Your task to perform on an android device: Open CNN.com Image 0: 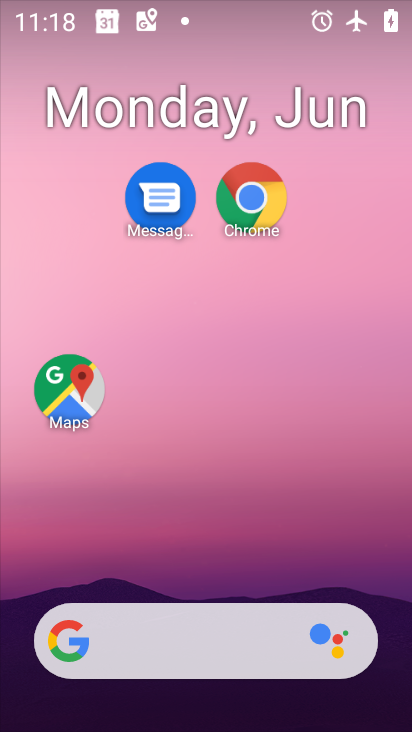
Step 0: click (265, 225)
Your task to perform on an android device: Open CNN.com Image 1: 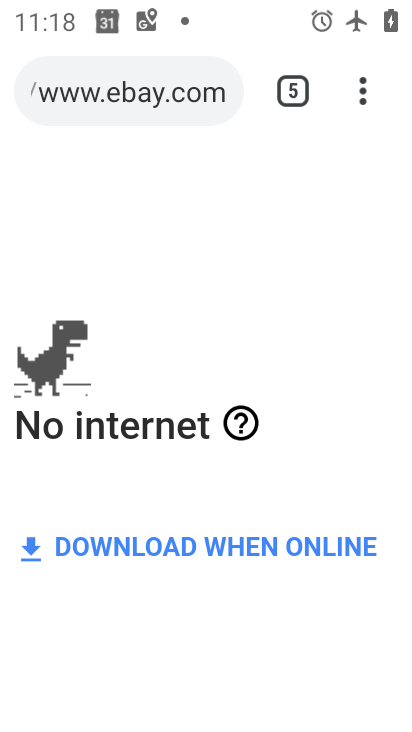
Step 1: click (298, 102)
Your task to perform on an android device: Open CNN.com Image 2: 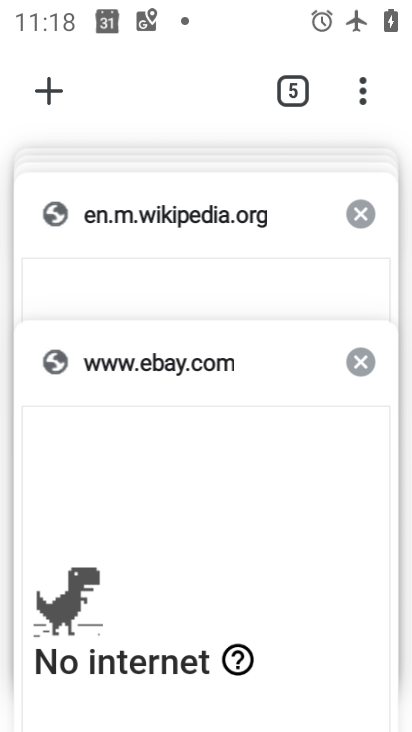
Step 2: click (356, 216)
Your task to perform on an android device: Open CNN.com Image 3: 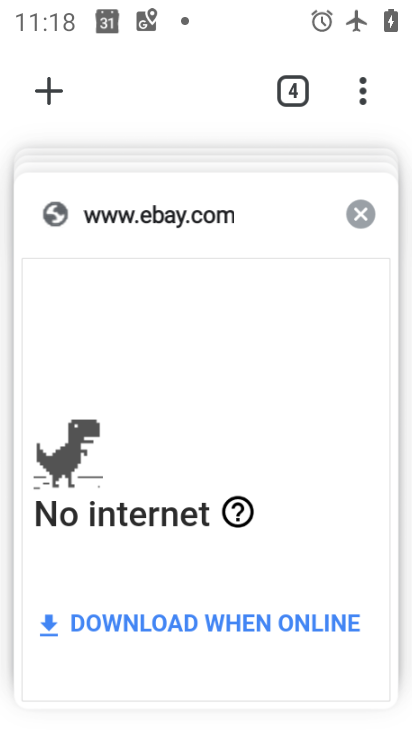
Step 3: click (356, 216)
Your task to perform on an android device: Open CNN.com Image 4: 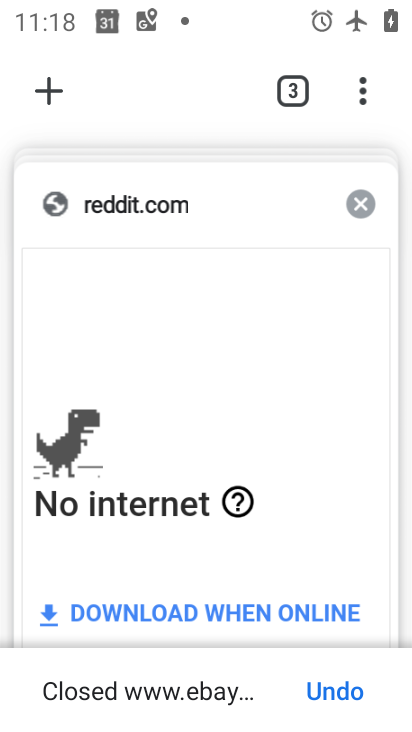
Step 4: click (356, 205)
Your task to perform on an android device: Open CNN.com Image 5: 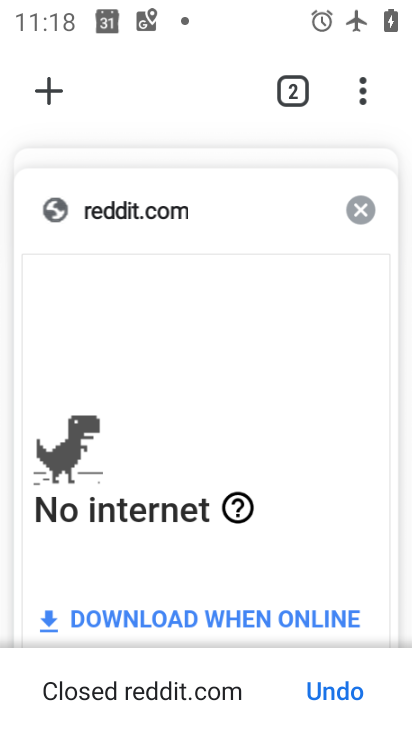
Step 5: click (356, 205)
Your task to perform on an android device: Open CNN.com Image 6: 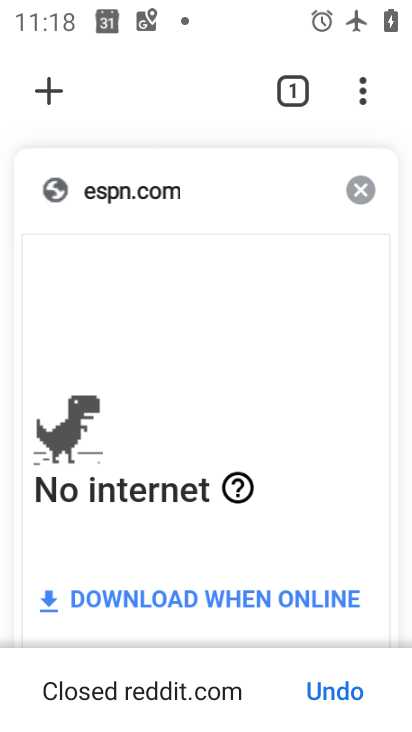
Step 6: click (54, 81)
Your task to perform on an android device: Open CNN.com Image 7: 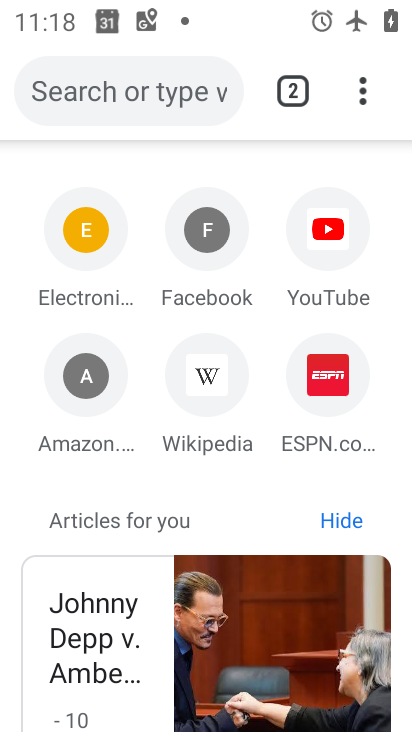
Step 7: type "CNN.com"
Your task to perform on an android device: Open CNN.com Image 8: 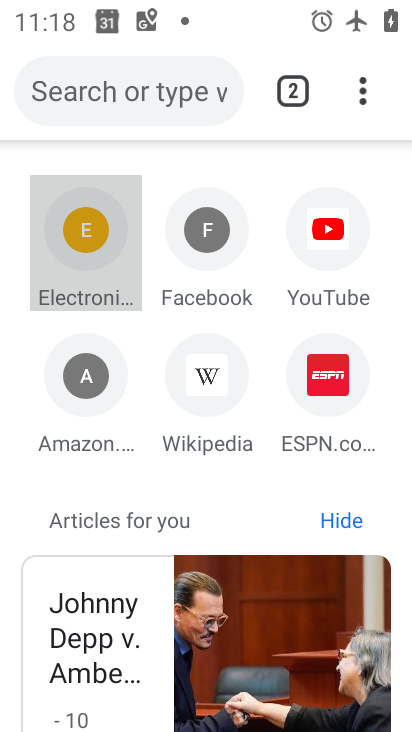
Step 8: click (107, 82)
Your task to perform on an android device: Open CNN.com Image 9: 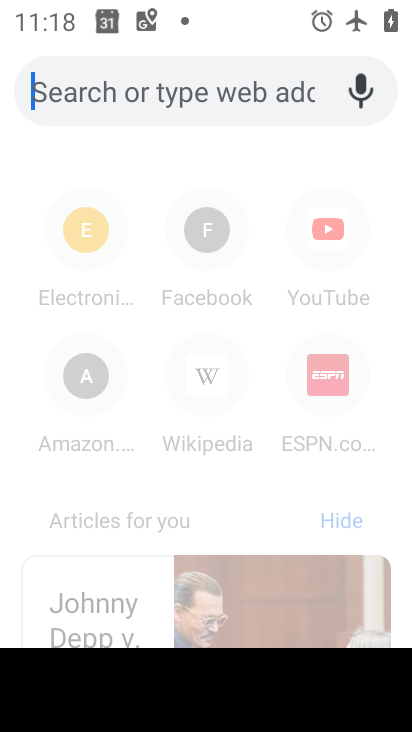
Step 9: type "CNN.com"
Your task to perform on an android device: Open CNN.com Image 10: 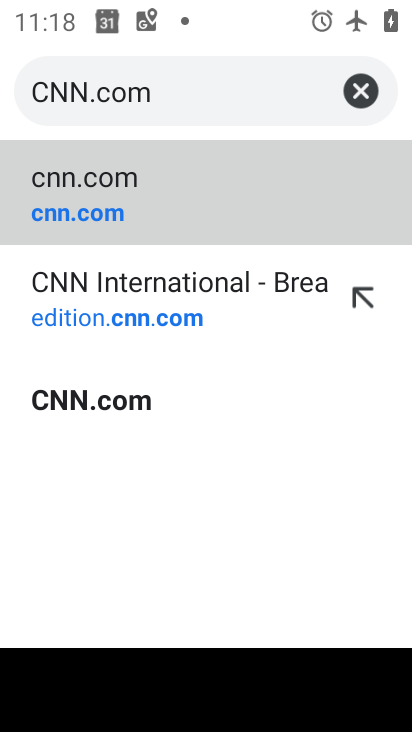
Step 10: click (241, 208)
Your task to perform on an android device: Open CNN.com Image 11: 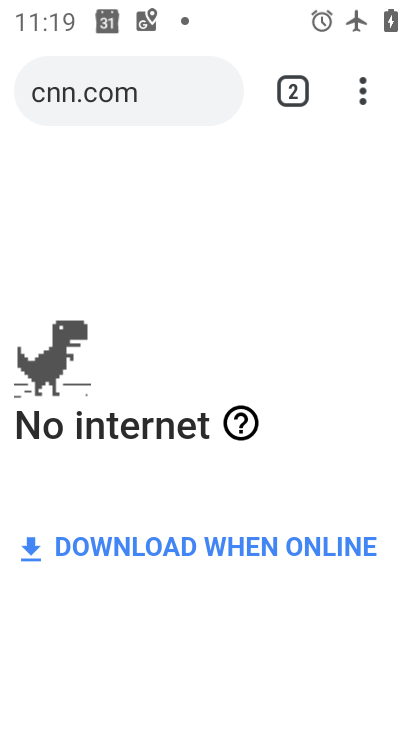
Step 11: task complete